Your task to perform on an android device: check google app version Image 0: 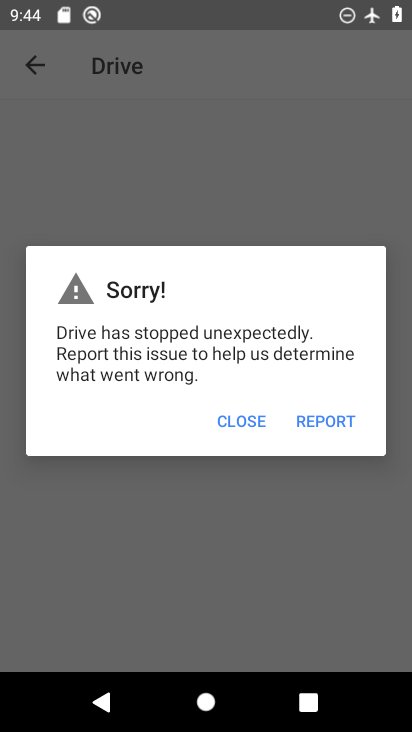
Step 0: press home button
Your task to perform on an android device: check google app version Image 1: 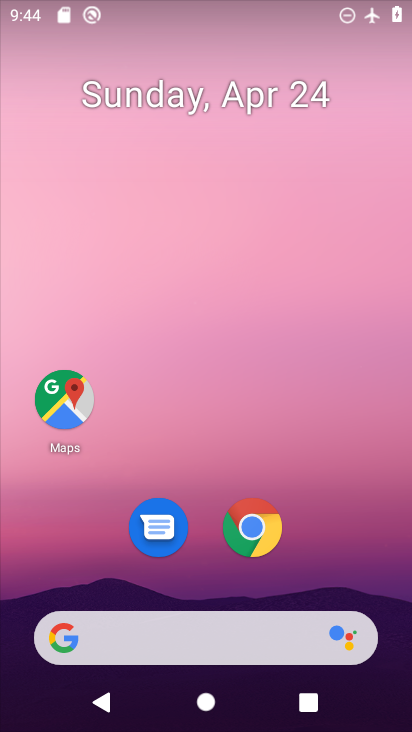
Step 1: drag from (393, 616) to (305, 31)
Your task to perform on an android device: check google app version Image 2: 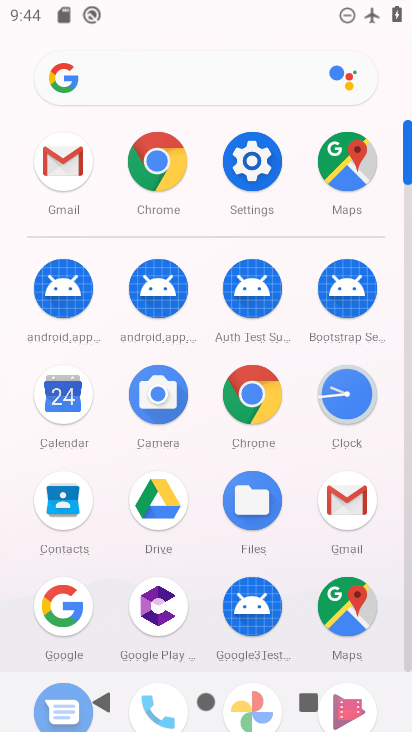
Step 2: click (66, 608)
Your task to perform on an android device: check google app version Image 3: 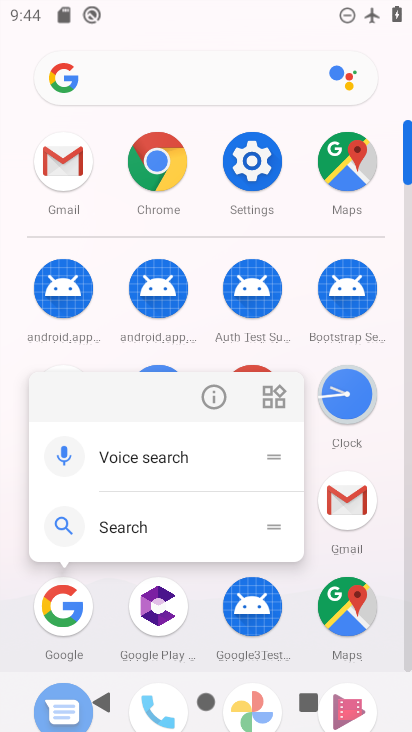
Step 3: click (206, 400)
Your task to perform on an android device: check google app version Image 4: 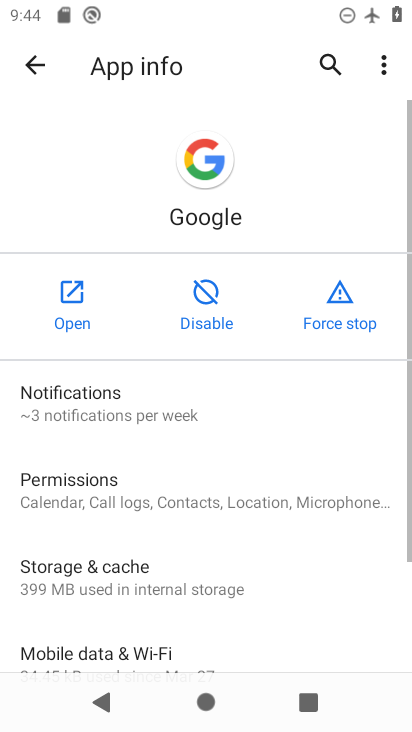
Step 4: drag from (113, 628) to (153, 75)
Your task to perform on an android device: check google app version Image 5: 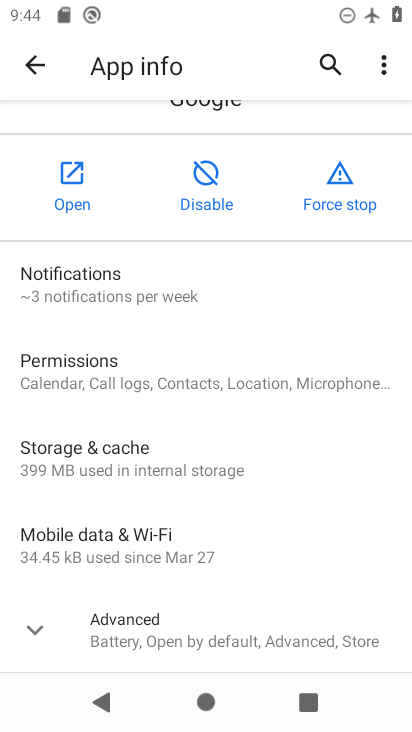
Step 5: click (38, 624)
Your task to perform on an android device: check google app version Image 6: 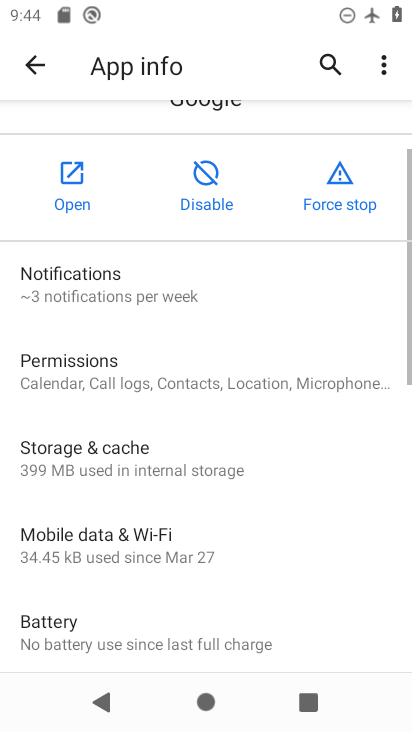
Step 6: task complete